Your task to perform on an android device: Search for vegetarian restaurants on Maps Image 0: 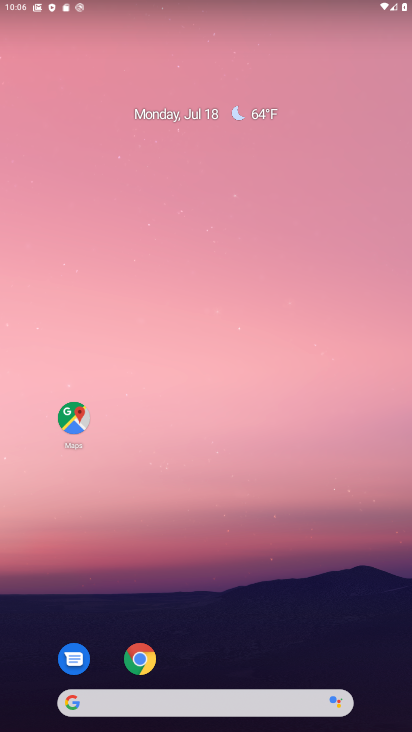
Step 0: drag from (193, 644) to (208, 157)
Your task to perform on an android device: Search for vegetarian restaurants on Maps Image 1: 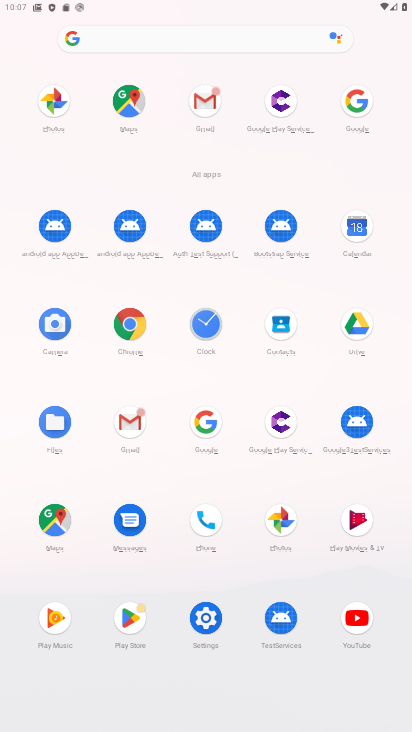
Step 1: click (59, 519)
Your task to perform on an android device: Search for vegetarian restaurants on Maps Image 2: 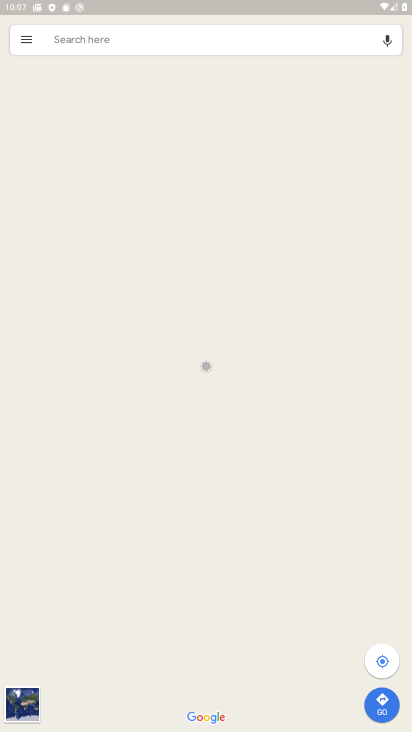
Step 2: click (150, 36)
Your task to perform on an android device: Search for vegetarian restaurants on Maps Image 3: 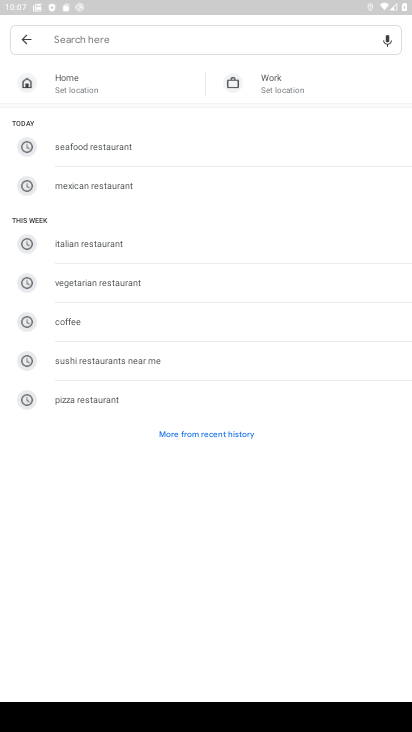
Step 3: type "vegetarian restaurents"
Your task to perform on an android device: Search for vegetarian restaurants on Maps Image 4: 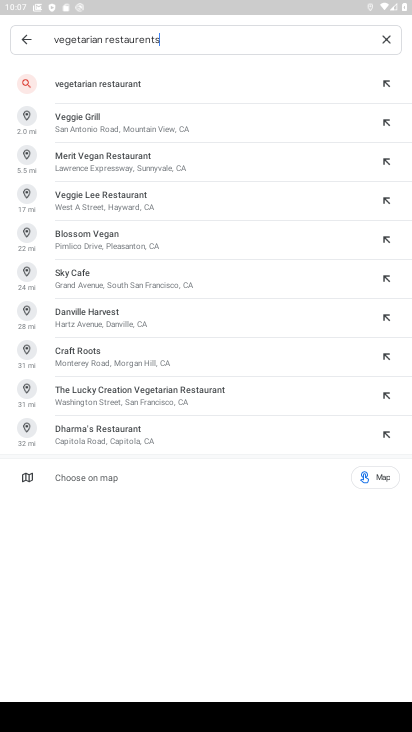
Step 4: click (136, 90)
Your task to perform on an android device: Search for vegetarian restaurants on Maps Image 5: 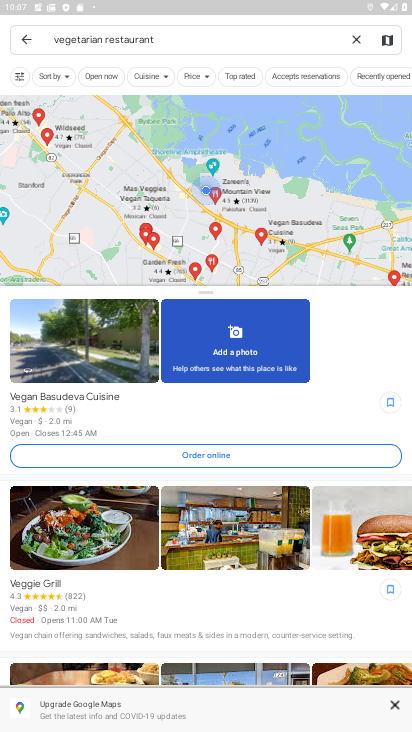
Step 5: task complete